Your task to perform on an android device: turn off javascript in the chrome app Image 0: 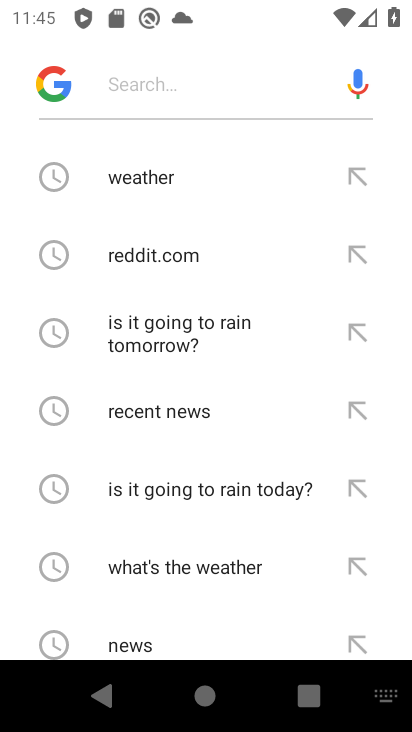
Step 0: press home button
Your task to perform on an android device: turn off javascript in the chrome app Image 1: 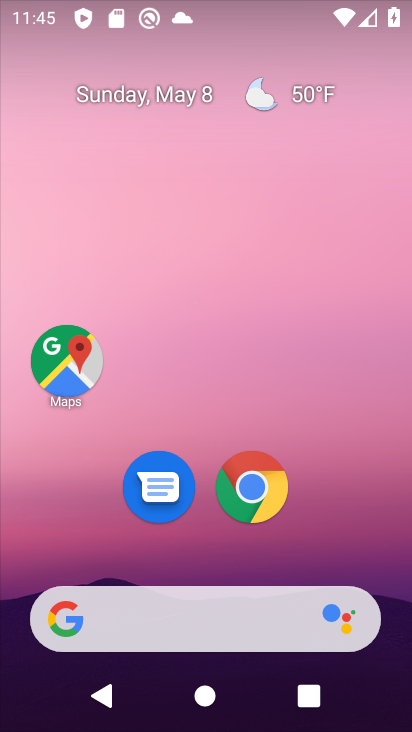
Step 1: drag from (388, 502) to (411, 72)
Your task to perform on an android device: turn off javascript in the chrome app Image 2: 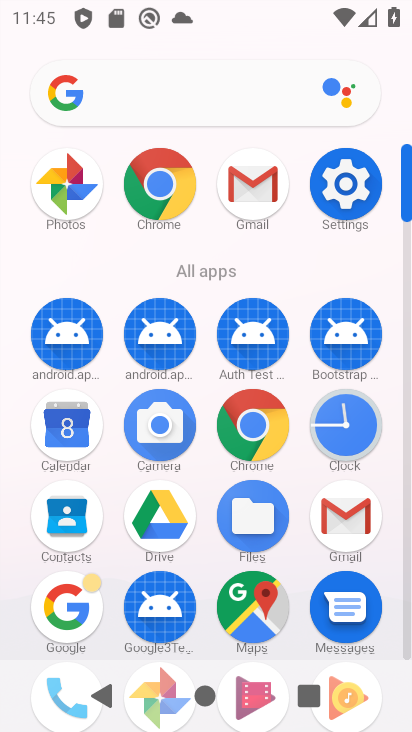
Step 2: click (167, 194)
Your task to perform on an android device: turn off javascript in the chrome app Image 3: 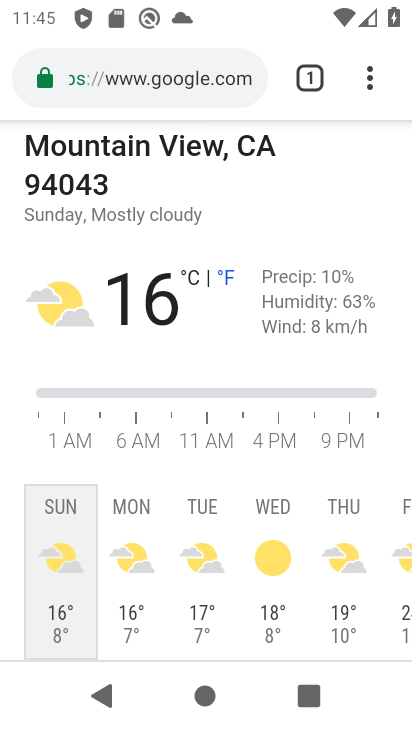
Step 3: drag from (374, 85) to (143, 557)
Your task to perform on an android device: turn off javascript in the chrome app Image 4: 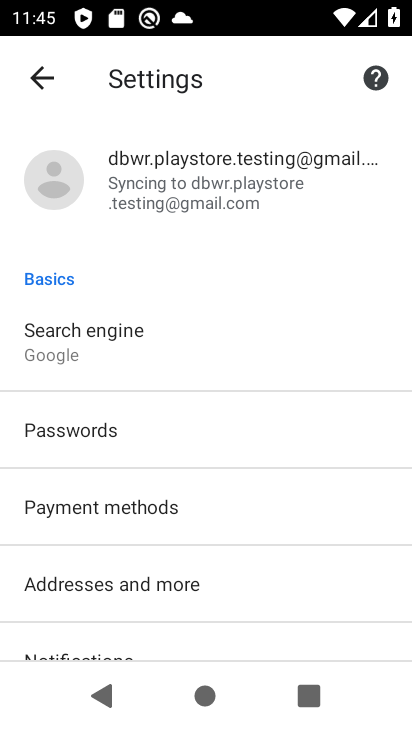
Step 4: drag from (151, 497) to (154, 152)
Your task to perform on an android device: turn off javascript in the chrome app Image 5: 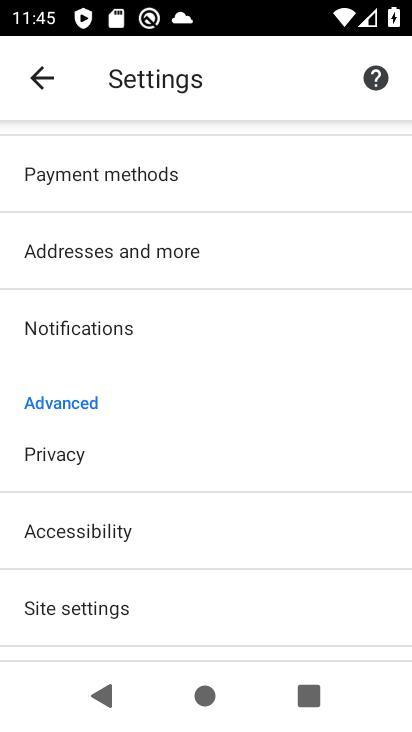
Step 5: click (196, 608)
Your task to perform on an android device: turn off javascript in the chrome app Image 6: 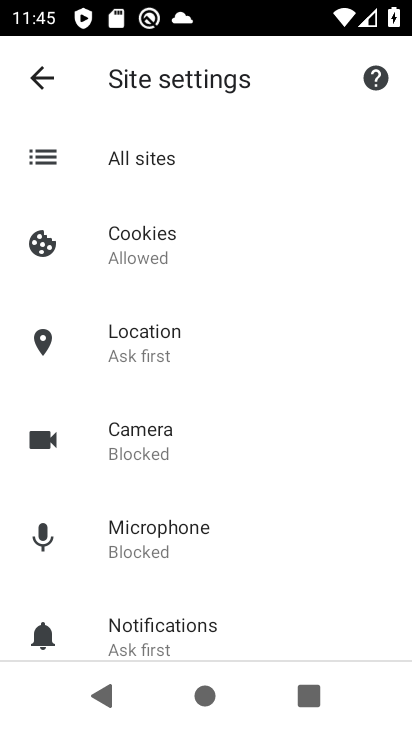
Step 6: drag from (222, 583) to (191, 296)
Your task to perform on an android device: turn off javascript in the chrome app Image 7: 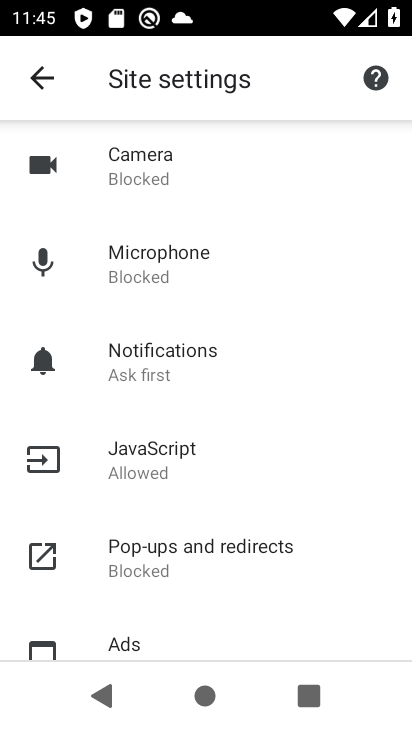
Step 7: click (212, 468)
Your task to perform on an android device: turn off javascript in the chrome app Image 8: 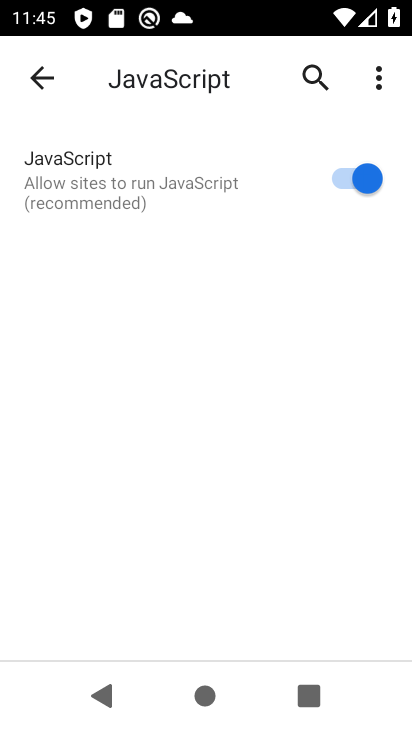
Step 8: click (369, 192)
Your task to perform on an android device: turn off javascript in the chrome app Image 9: 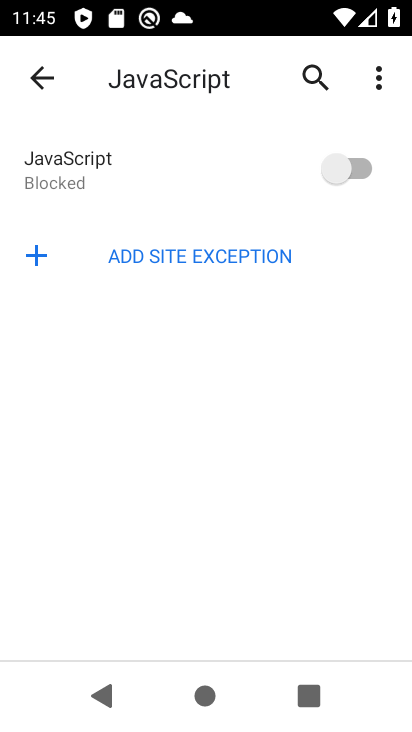
Step 9: task complete